Your task to perform on an android device: Go to calendar. Show me events next week Image 0: 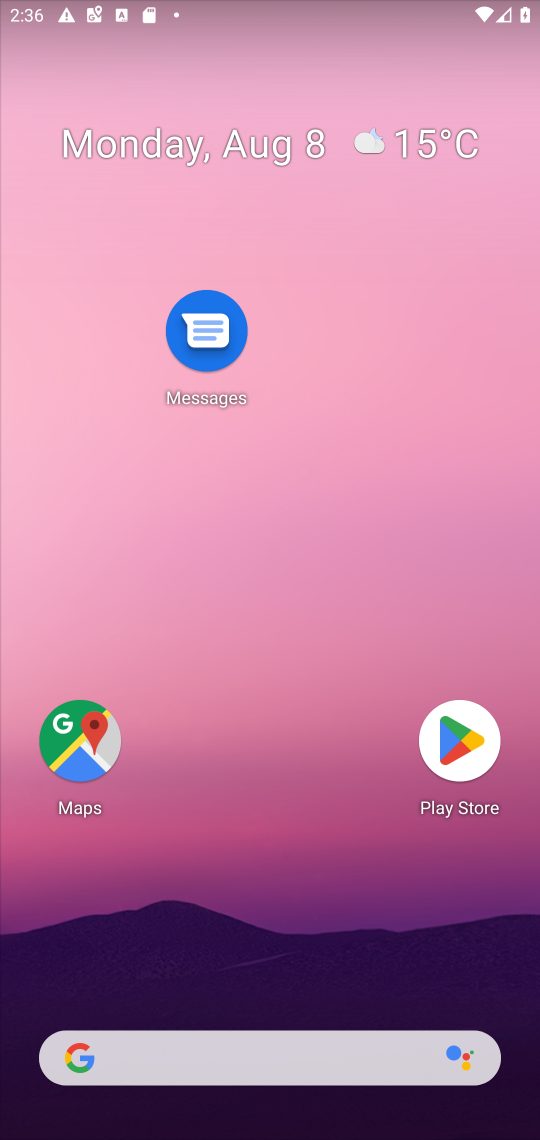
Step 0: drag from (217, 1060) to (529, 13)
Your task to perform on an android device: Go to calendar. Show me events next week Image 1: 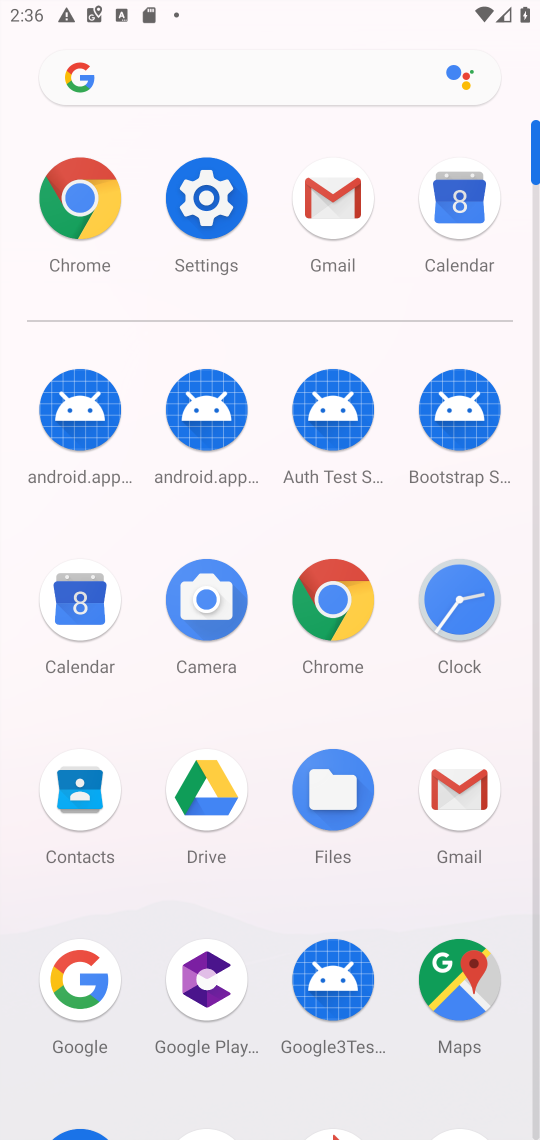
Step 1: click (94, 614)
Your task to perform on an android device: Go to calendar. Show me events next week Image 2: 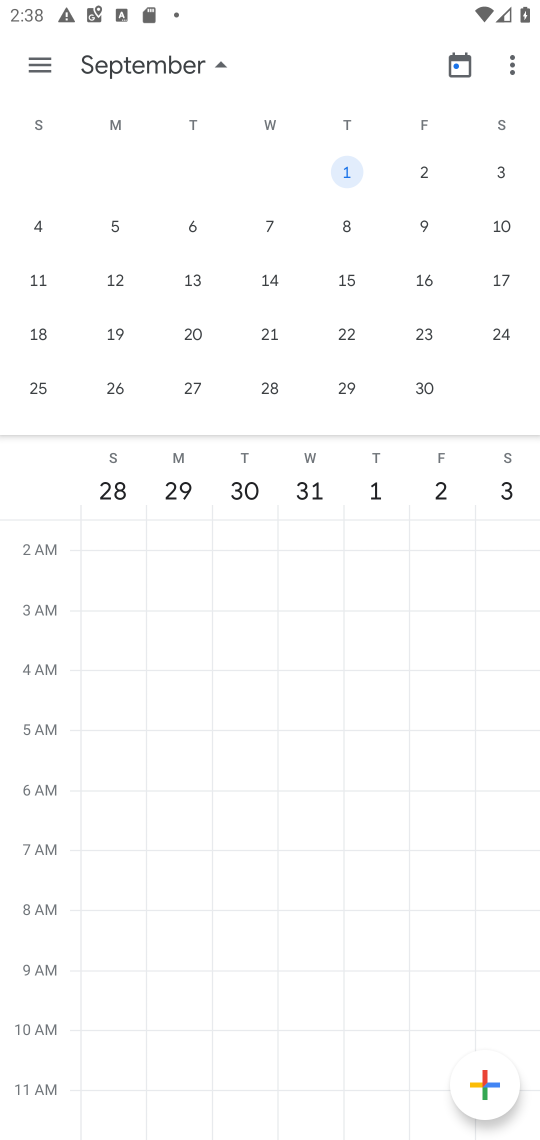
Step 2: click (274, 225)
Your task to perform on an android device: Go to calendar. Show me events next week Image 3: 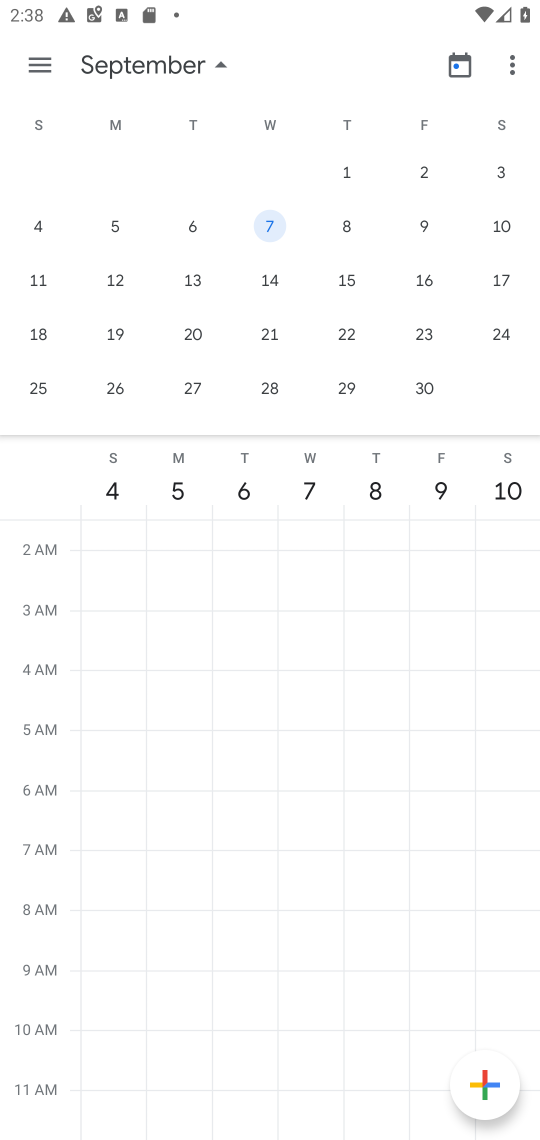
Step 3: task complete